Your task to perform on an android device: Open calendar and show me the first week of next month Image 0: 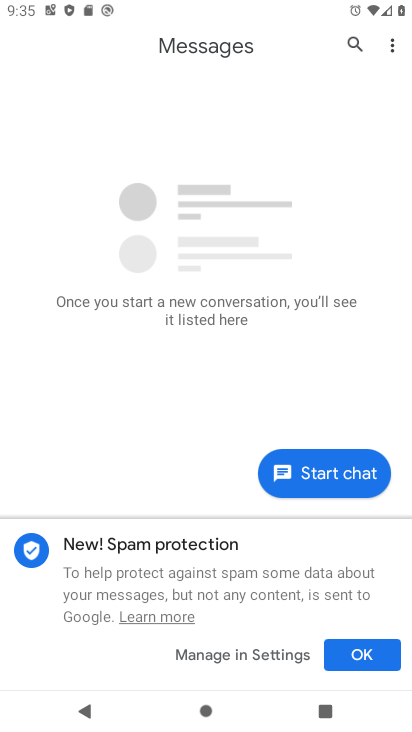
Step 0: press home button
Your task to perform on an android device: Open calendar and show me the first week of next month Image 1: 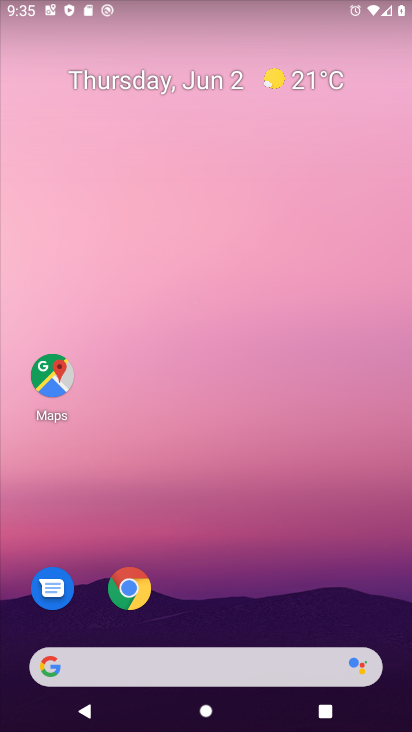
Step 1: drag from (236, 657) to (353, 184)
Your task to perform on an android device: Open calendar and show me the first week of next month Image 2: 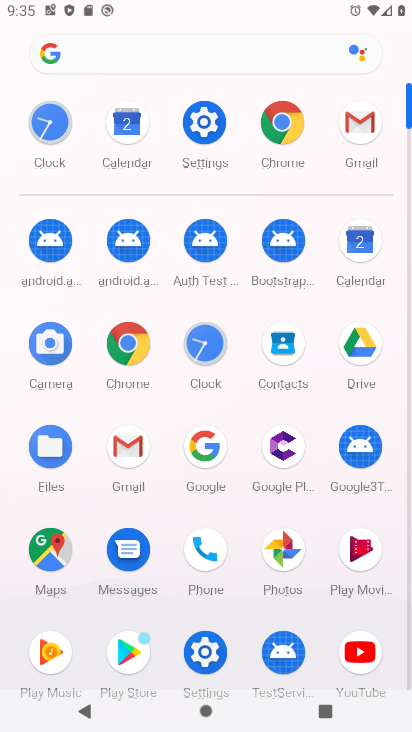
Step 2: click (356, 255)
Your task to perform on an android device: Open calendar and show me the first week of next month Image 3: 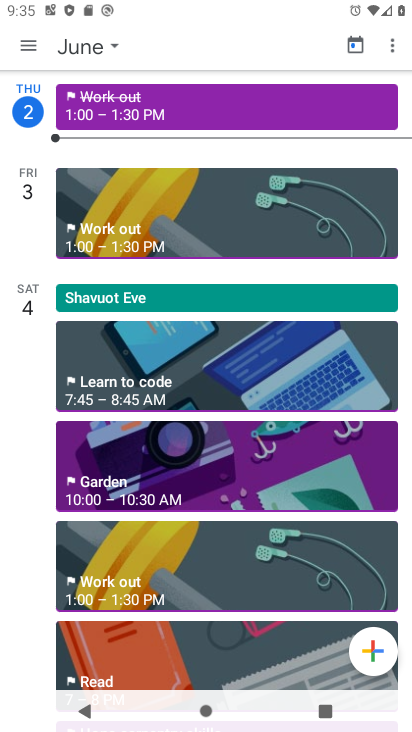
Step 3: click (29, 49)
Your task to perform on an android device: Open calendar and show me the first week of next month Image 4: 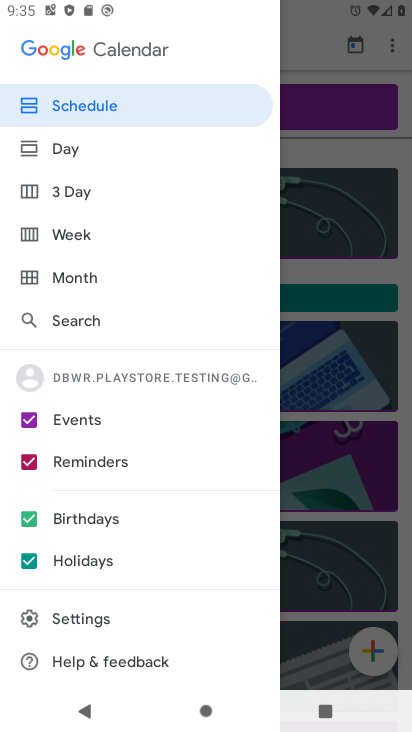
Step 4: click (73, 278)
Your task to perform on an android device: Open calendar and show me the first week of next month Image 5: 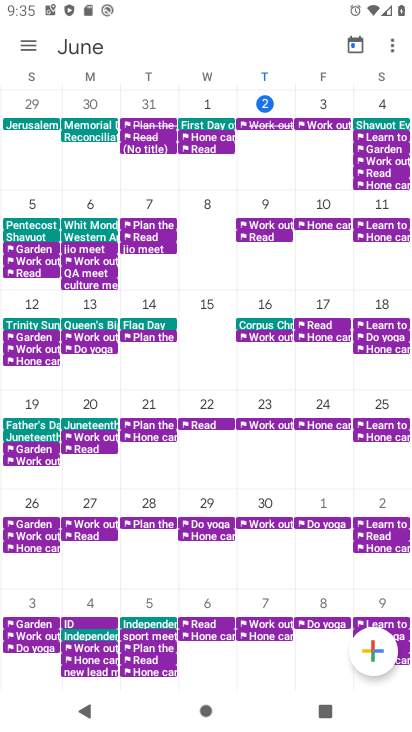
Step 5: drag from (347, 366) to (39, 372)
Your task to perform on an android device: Open calendar and show me the first week of next month Image 6: 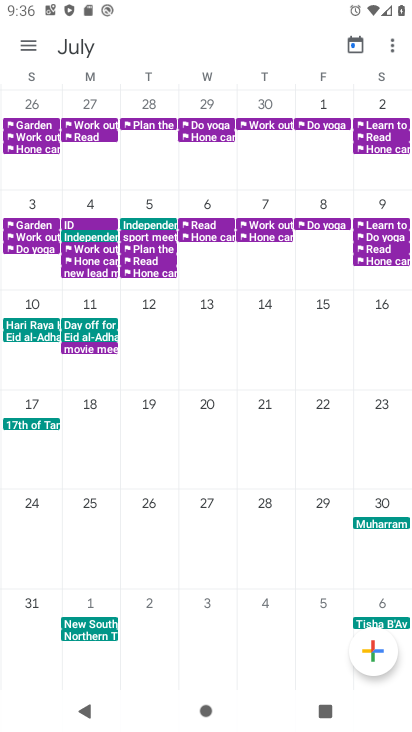
Step 6: press home button
Your task to perform on an android device: Open calendar and show me the first week of next month Image 7: 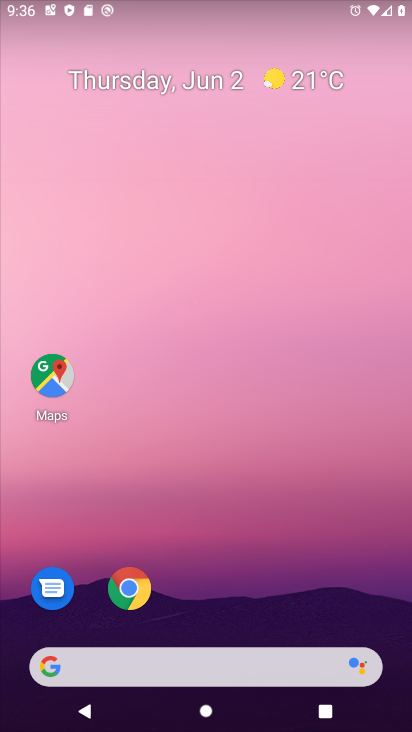
Step 7: drag from (174, 669) to (287, 128)
Your task to perform on an android device: Open calendar and show me the first week of next month Image 8: 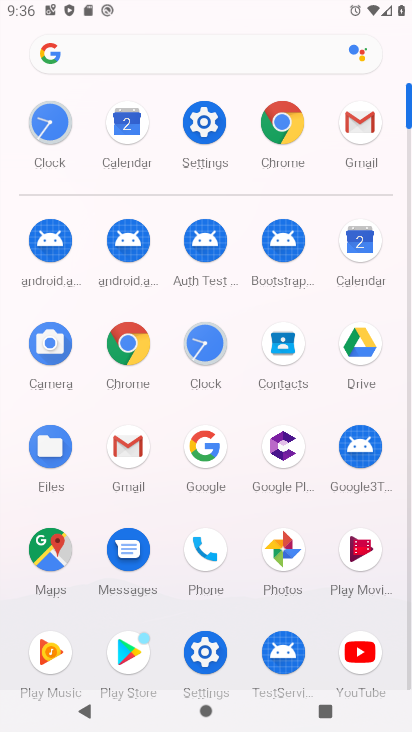
Step 8: click (355, 242)
Your task to perform on an android device: Open calendar and show me the first week of next month Image 9: 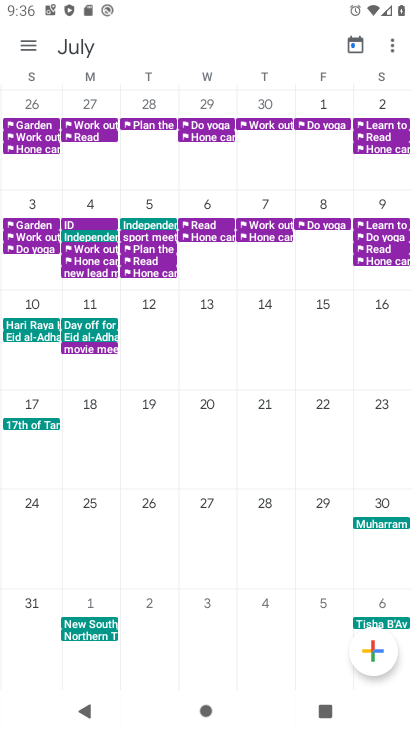
Step 9: task complete